Your task to perform on an android device: create a new album in the google photos Image 0: 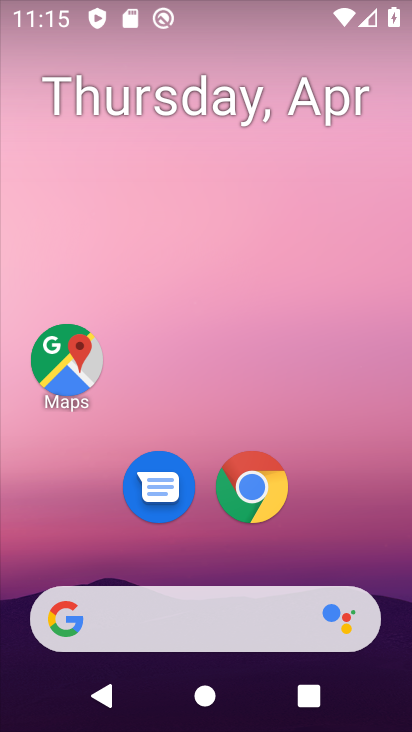
Step 0: drag from (270, 586) to (282, 235)
Your task to perform on an android device: create a new album in the google photos Image 1: 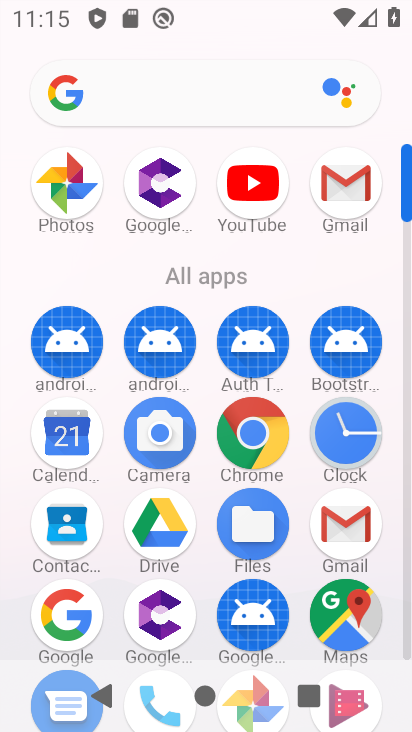
Step 1: drag from (256, 653) to (297, 427)
Your task to perform on an android device: create a new album in the google photos Image 2: 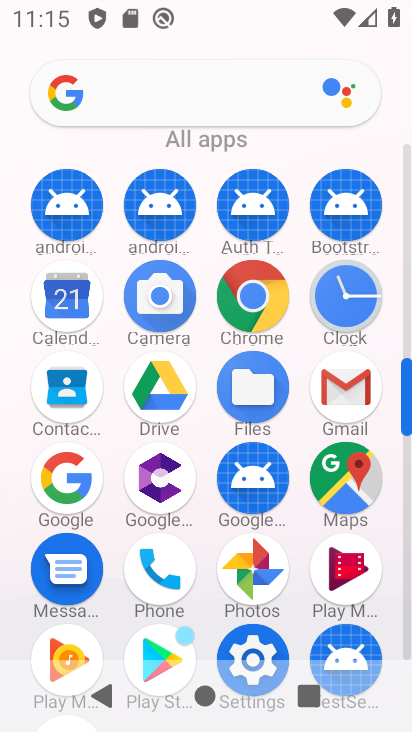
Step 2: click (248, 558)
Your task to perform on an android device: create a new album in the google photos Image 3: 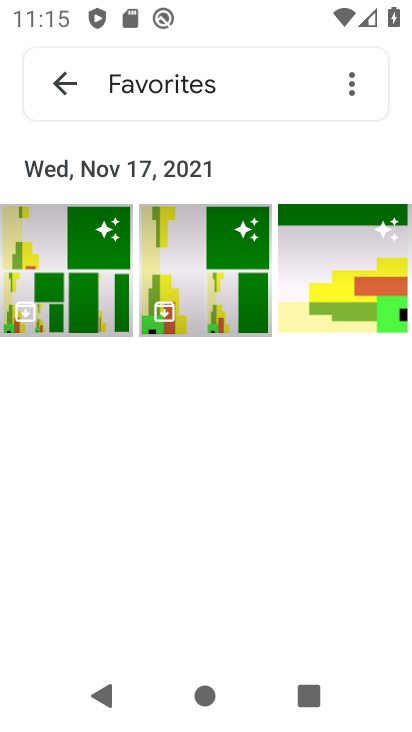
Step 3: click (75, 294)
Your task to perform on an android device: create a new album in the google photos Image 4: 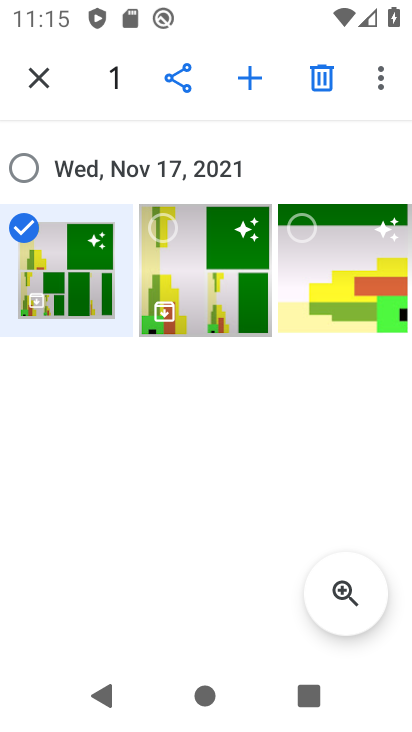
Step 4: click (245, 65)
Your task to perform on an android device: create a new album in the google photos Image 5: 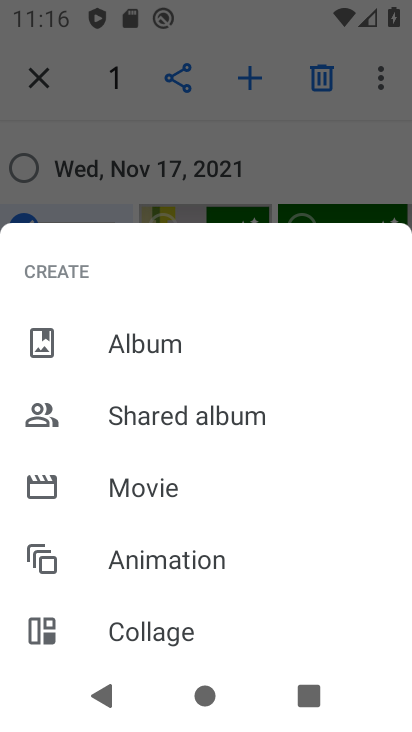
Step 5: click (173, 350)
Your task to perform on an android device: create a new album in the google photos Image 6: 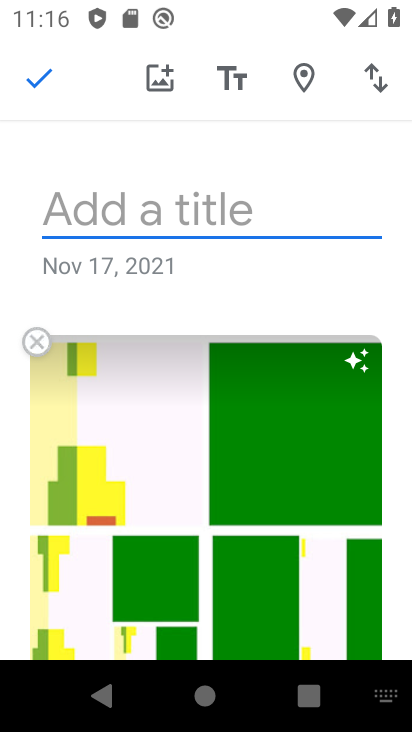
Step 6: click (131, 206)
Your task to perform on an android device: create a new album in the google photos Image 7: 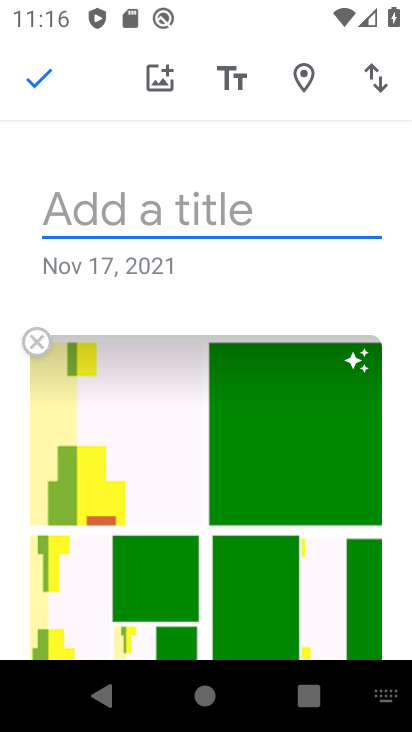
Step 7: type "gfgfgfgfggf"
Your task to perform on an android device: create a new album in the google photos Image 8: 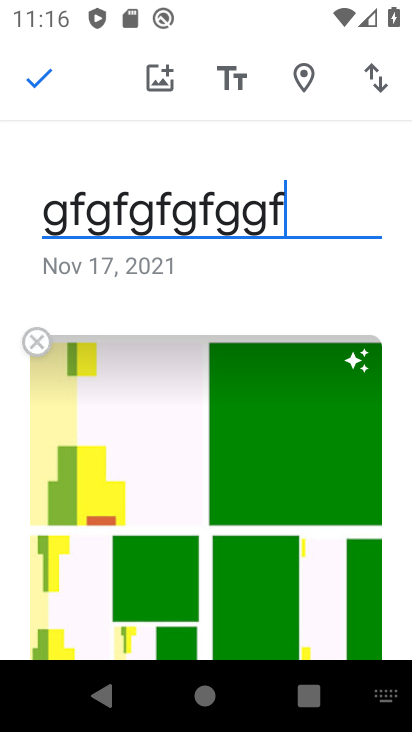
Step 8: click (42, 71)
Your task to perform on an android device: create a new album in the google photos Image 9: 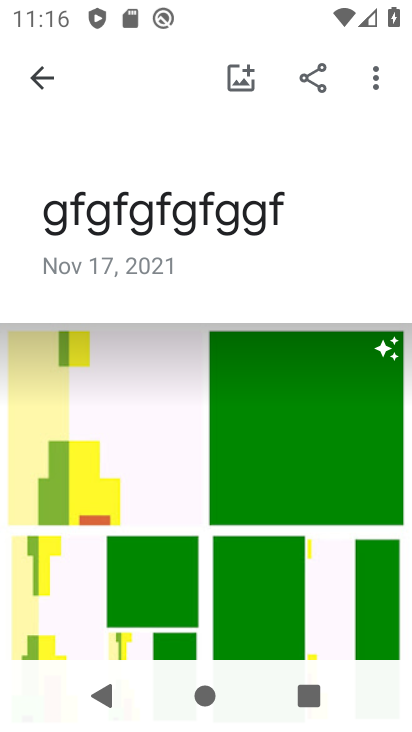
Step 9: task complete